Your task to perform on an android device: What's the weather? Image 0: 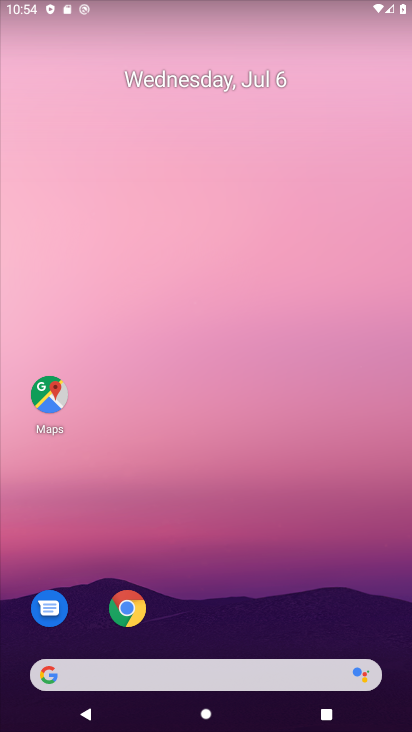
Step 0: click (210, 673)
Your task to perform on an android device: What's the weather? Image 1: 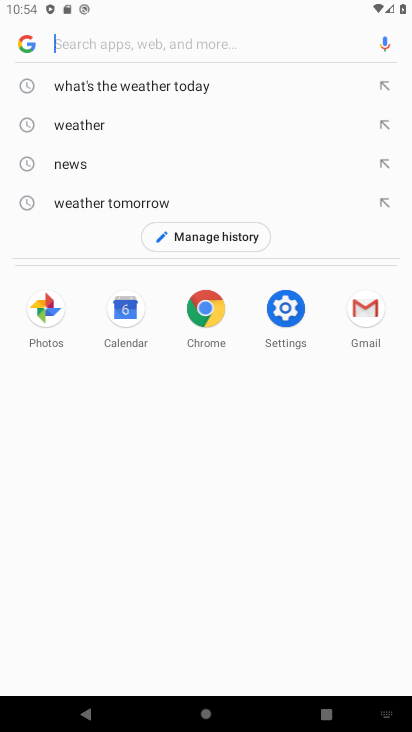
Step 1: click (67, 113)
Your task to perform on an android device: What's the weather? Image 2: 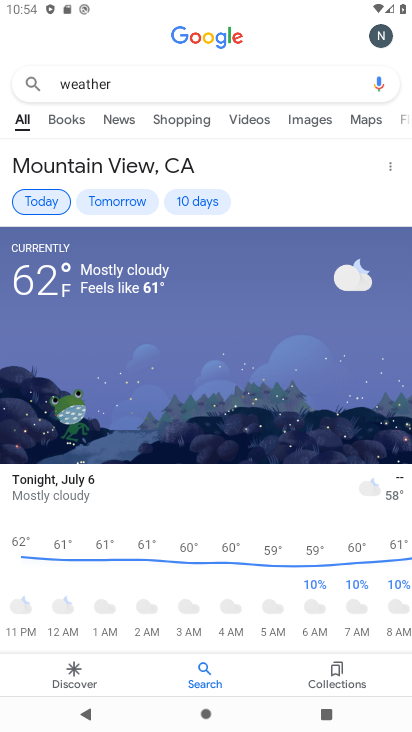
Step 2: task complete